Your task to perform on an android device: Open the map Image 0: 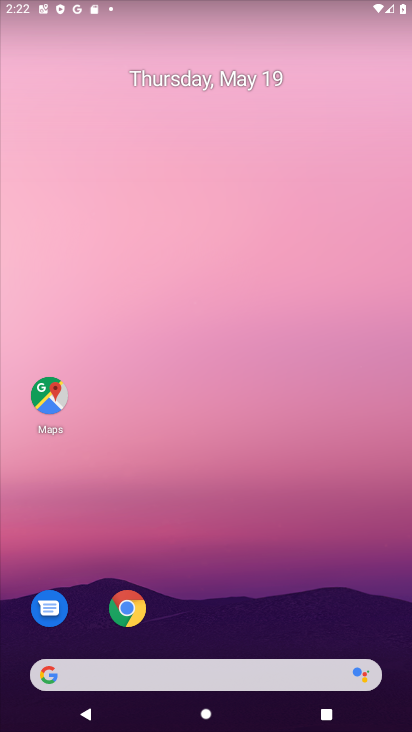
Step 0: click (55, 383)
Your task to perform on an android device: Open the map Image 1: 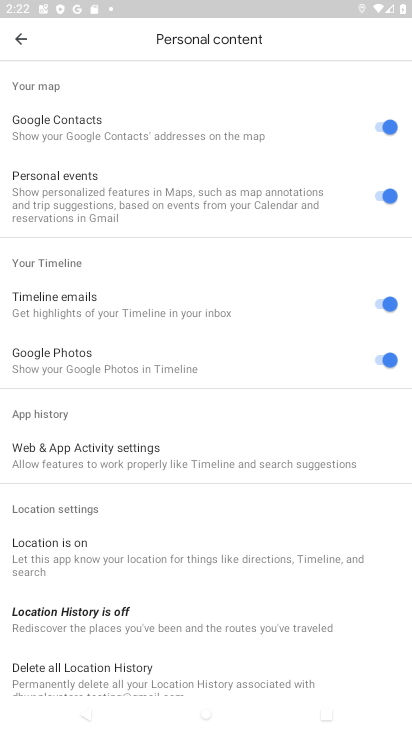
Step 1: click (16, 49)
Your task to perform on an android device: Open the map Image 2: 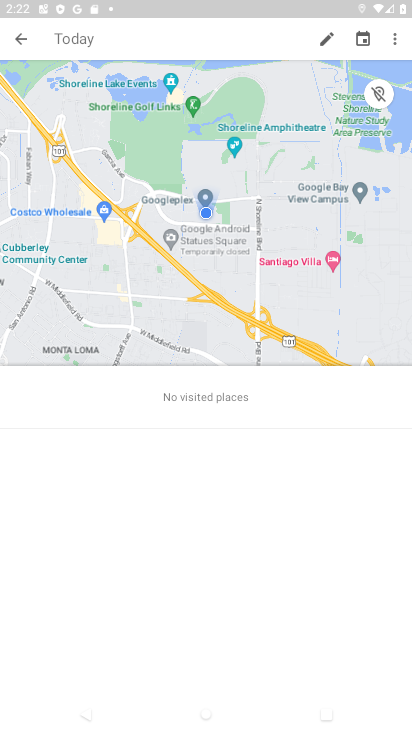
Step 2: task complete